Your task to perform on an android device: toggle pop-ups in chrome Image 0: 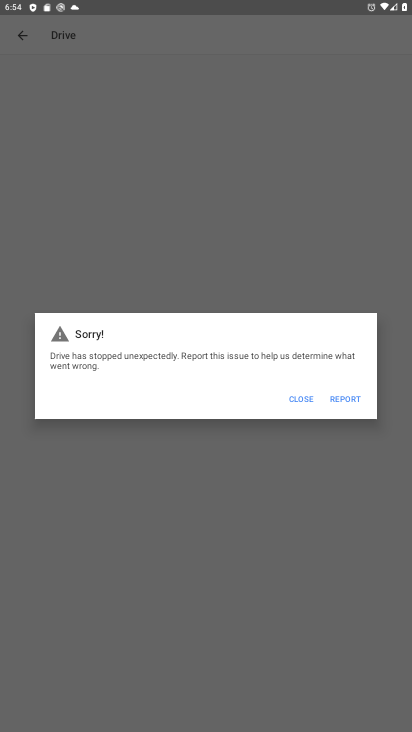
Step 0: press home button
Your task to perform on an android device: toggle pop-ups in chrome Image 1: 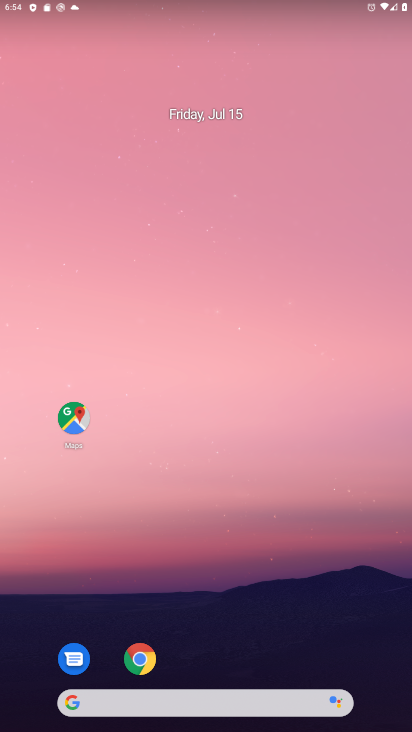
Step 1: click (139, 659)
Your task to perform on an android device: toggle pop-ups in chrome Image 2: 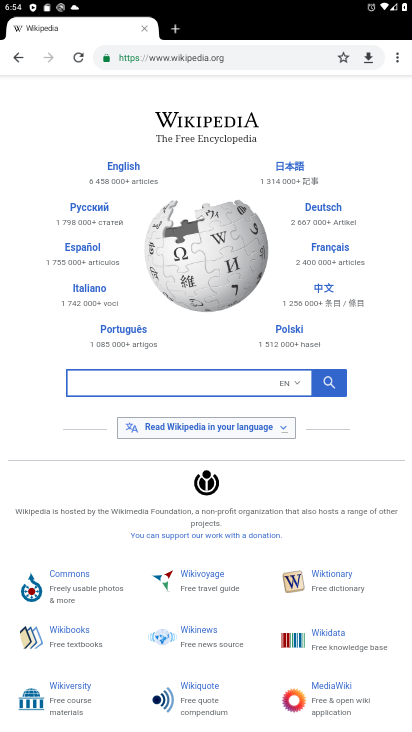
Step 2: click (395, 57)
Your task to perform on an android device: toggle pop-ups in chrome Image 3: 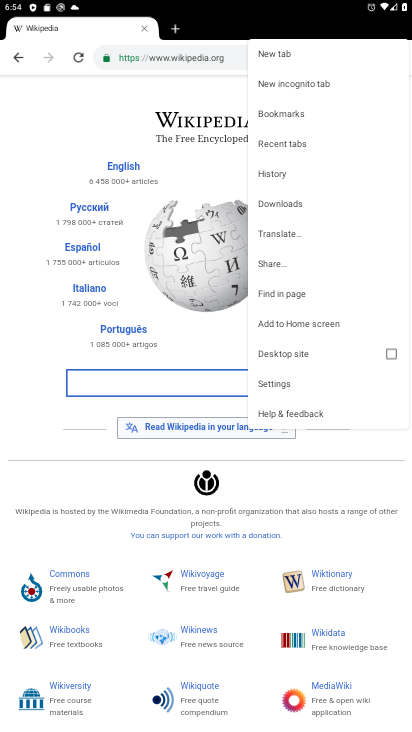
Step 3: click (280, 379)
Your task to perform on an android device: toggle pop-ups in chrome Image 4: 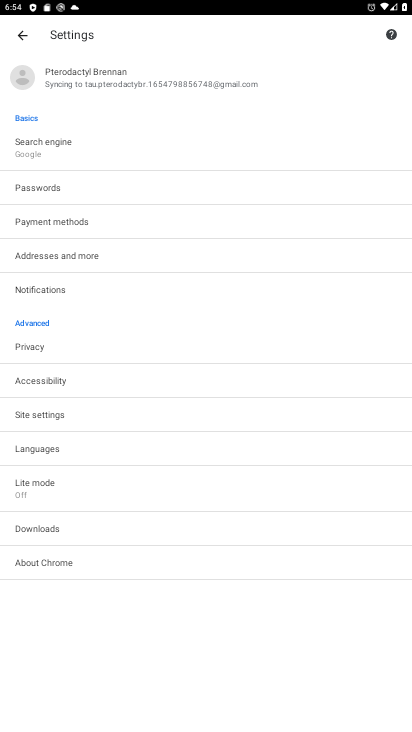
Step 4: click (47, 414)
Your task to perform on an android device: toggle pop-ups in chrome Image 5: 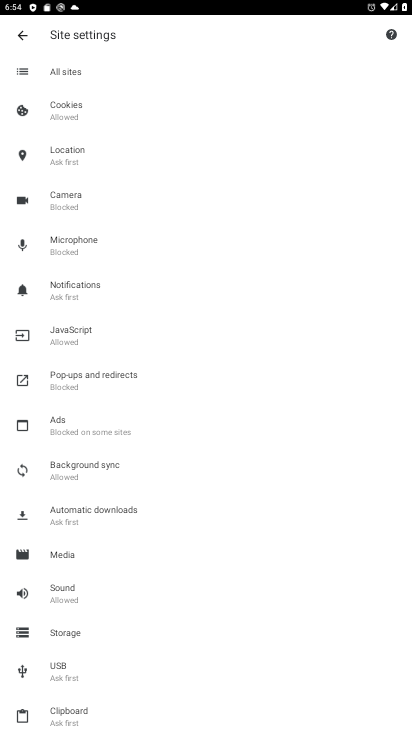
Step 5: click (77, 376)
Your task to perform on an android device: toggle pop-ups in chrome Image 6: 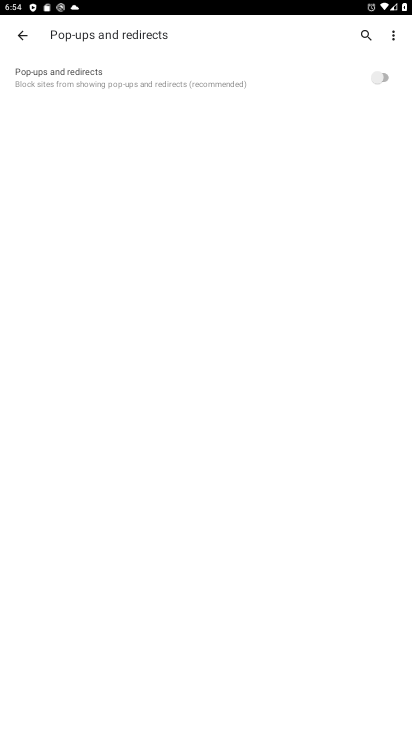
Step 6: click (384, 75)
Your task to perform on an android device: toggle pop-ups in chrome Image 7: 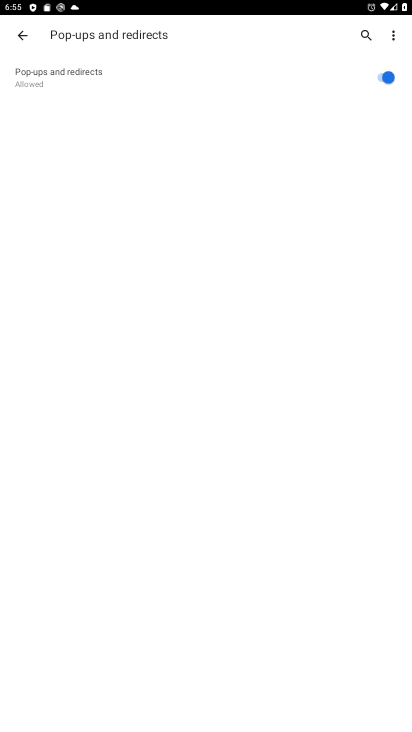
Step 7: task complete